Your task to perform on an android device: Search for a 1/2 in. x 1/2 in. x 24 in. 600 grit sander on Lowes.com Image 0: 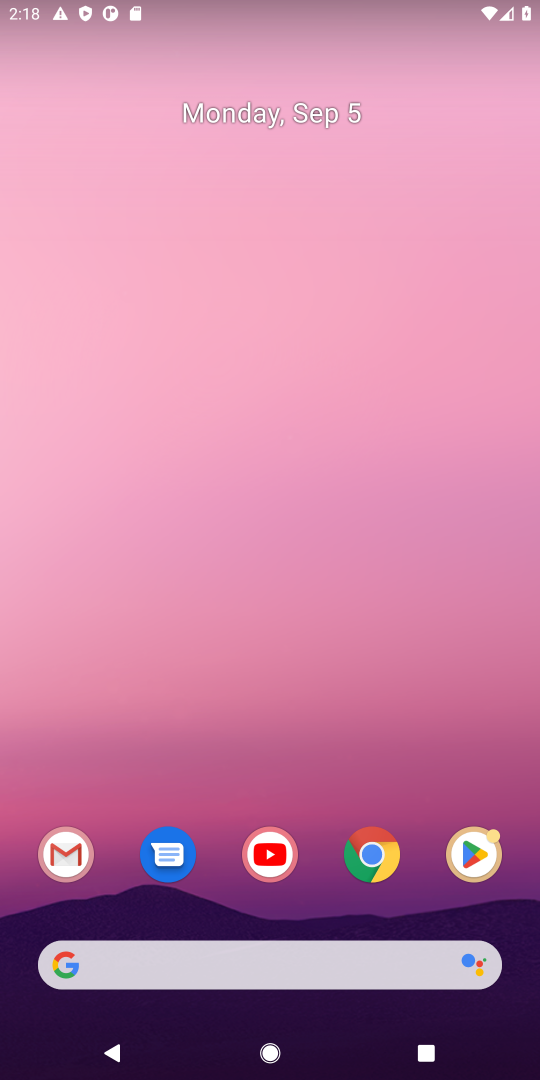
Step 0: press home button
Your task to perform on an android device: Search for a 1/2 in. x 1/2 in. x 24 in. 600 grit sander on Lowes.com Image 1: 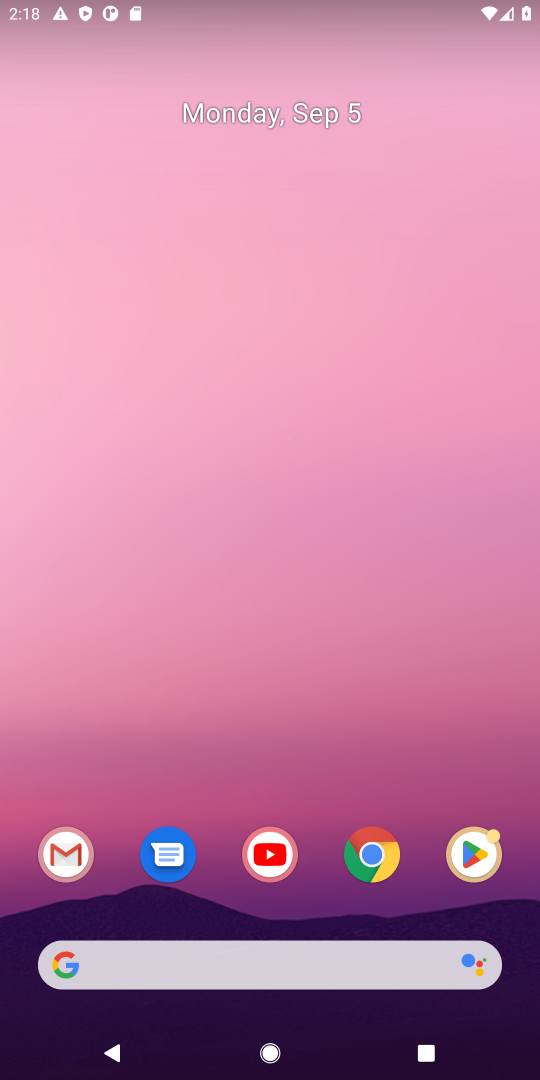
Step 1: click (382, 950)
Your task to perform on an android device: Search for a 1/2 in. x 1/2 in. x 24 in. 600 grit sander on Lowes.com Image 2: 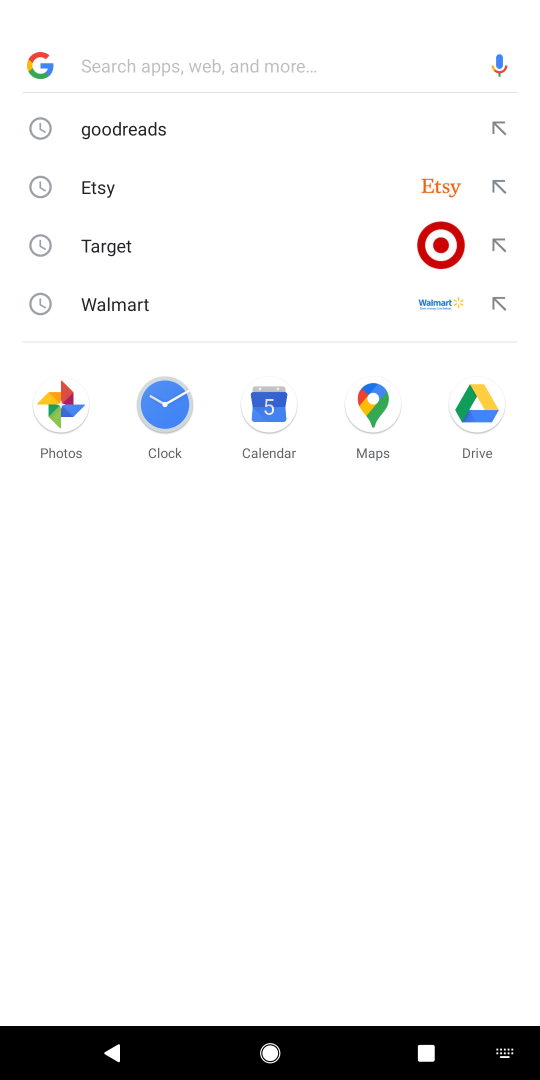
Step 2: press enter
Your task to perform on an android device: Search for a 1/2 in. x 1/2 in. x 24 in. 600 grit sander on Lowes.com Image 3: 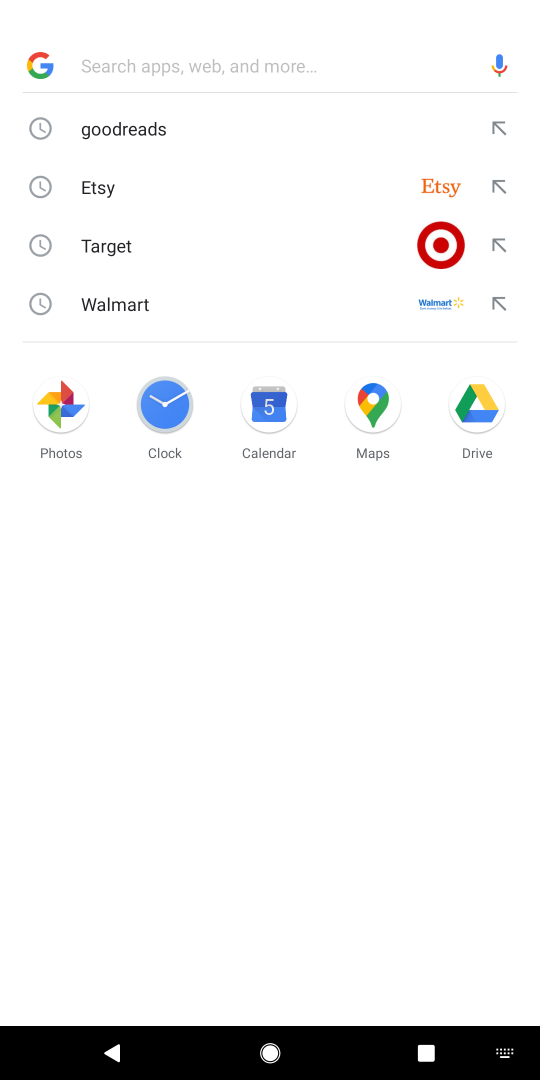
Step 3: type "lowes.com"
Your task to perform on an android device: Search for a 1/2 in. x 1/2 in. x 24 in. 600 grit sander on Lowes.com Image 4: 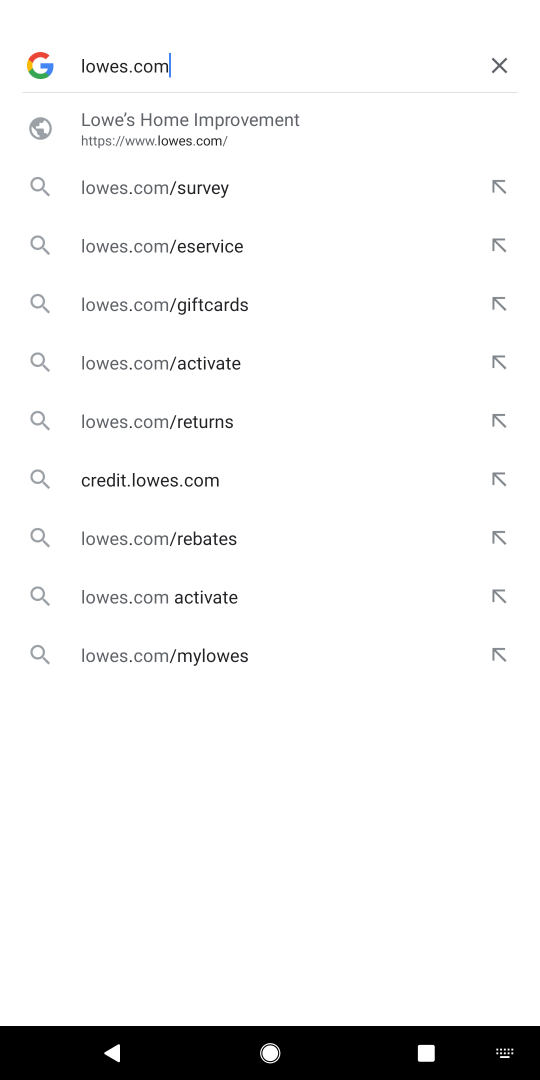
Step 4: click (266, 124)
Your task to perform on an android device: Search for a 1/2 in. x 1/2 in. x 24 in. 600 grit sander on Lowes.com Image 5: 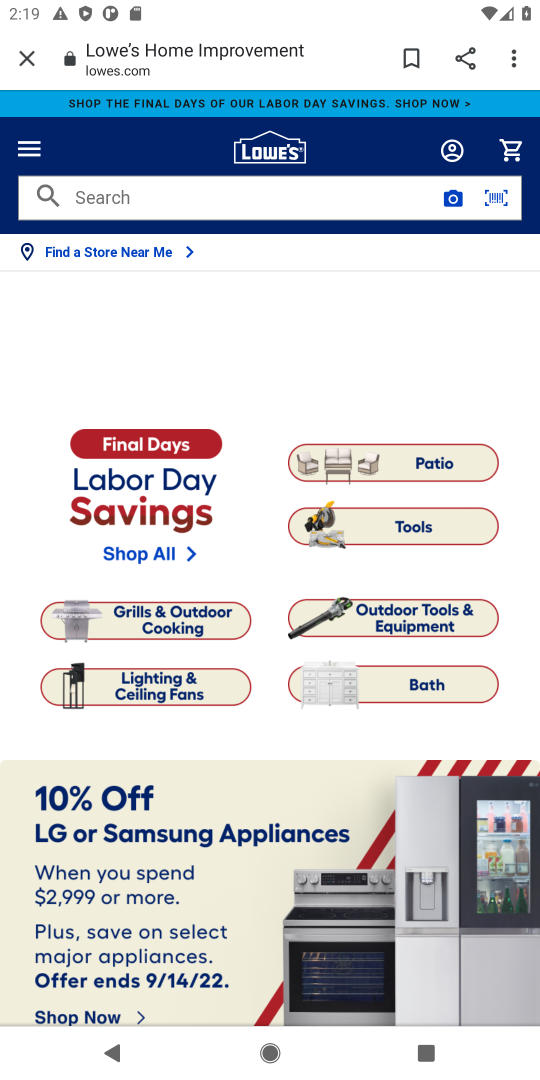
Step 5: click (236, 195)
Your task to perform on an android device: Search for a 1/2 in. x 1/2 in. x 24 in. 600 grit sander on Lowes.com Image 6: 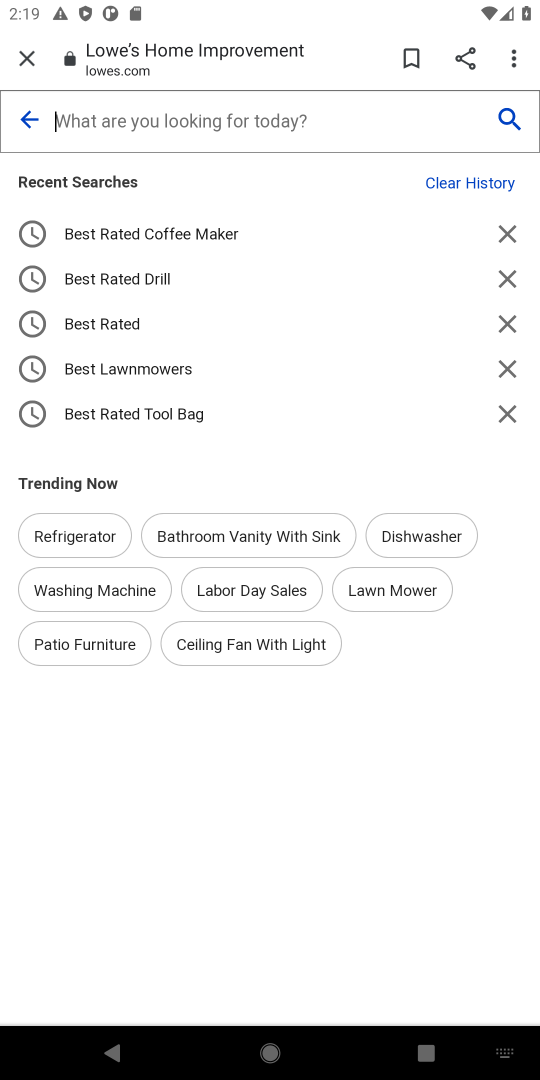
Step 6: type "1/2 in. x 1/2 in. x 24 in. 600 grit sander"
Your task to perform on an android device: Search for a 1/2 in. x 1/2 in. x 24 in. 600 grit sander on Lowes.com Image 7: 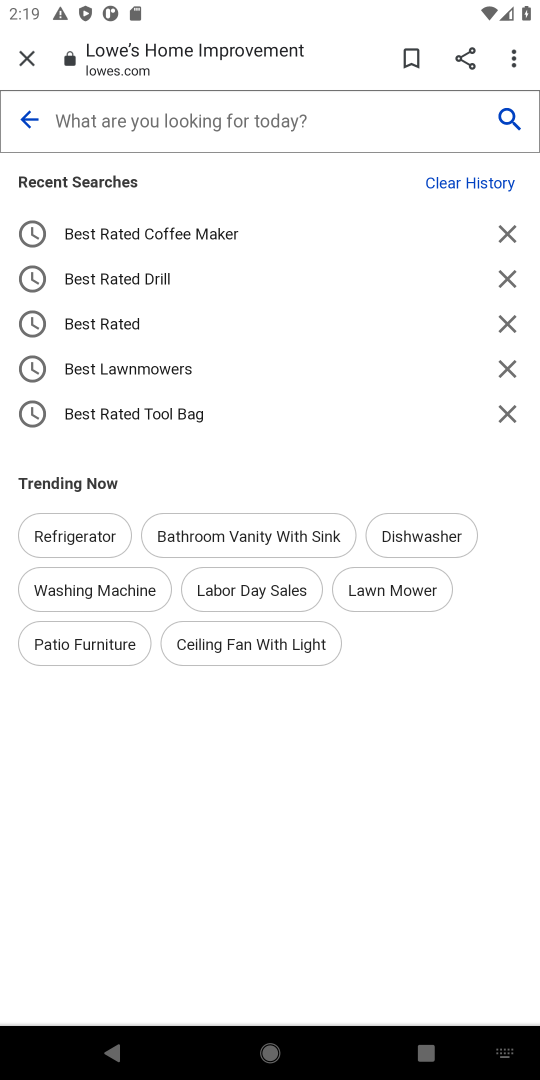
Step 7: press enter
Your task to perform on an android device: Search for a 1/2 in. x 1/2 in. x 24 in. 600 grit sander on Lowes.com Image 8: 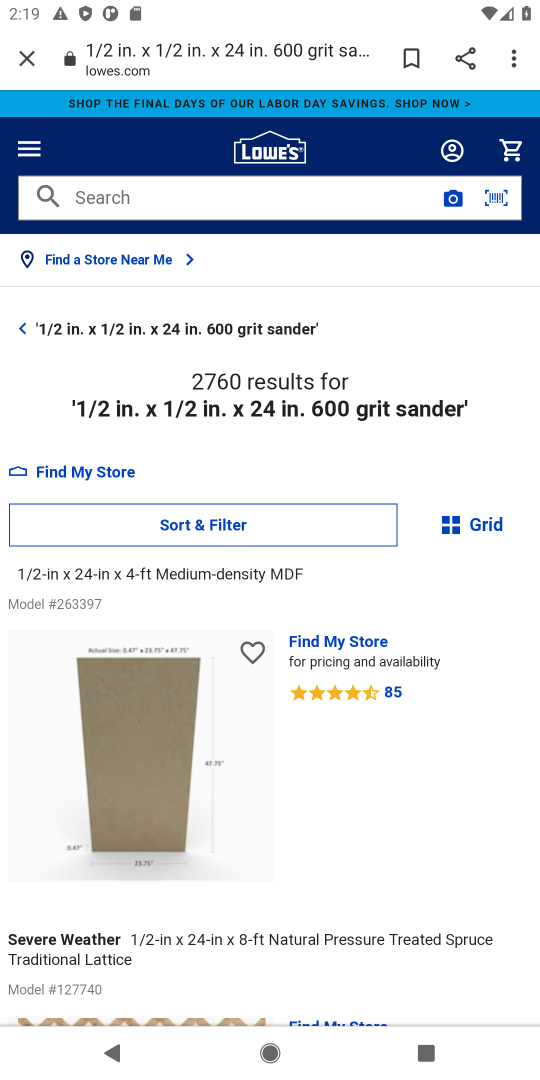
Step 8: task complete